Your task to perform on an android device: toggle show notifications on the lock screen Image 0: 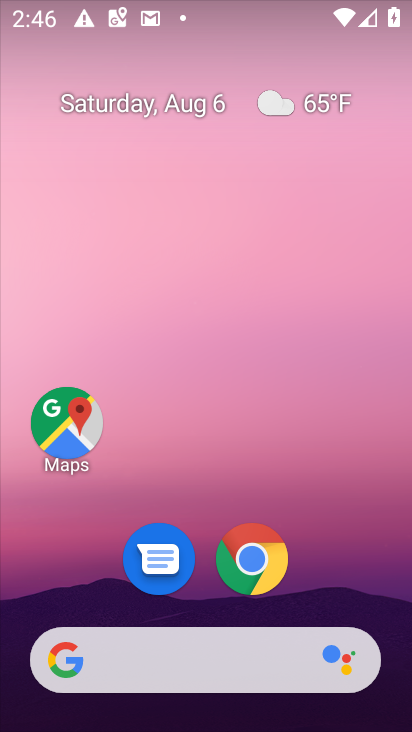
Step 0: drag from (224, 517) to (274, 159)
Your task to perform on an android device: toggle show notifications on the lock screen Image 1: 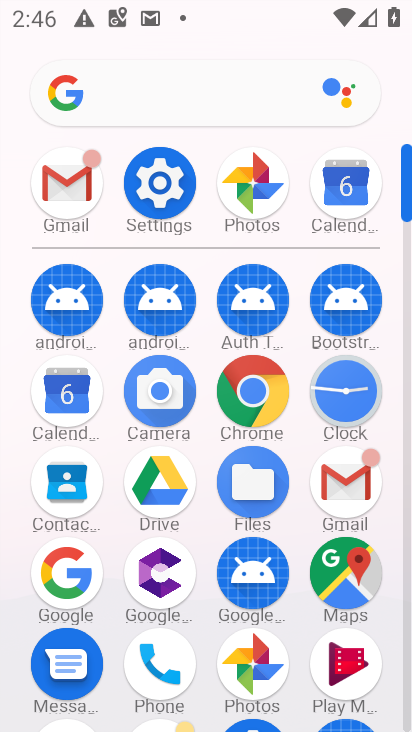
Step 1: click (160, 175)
Your task to perform on an android device: toggle show notifications on the lock screen Image 2: 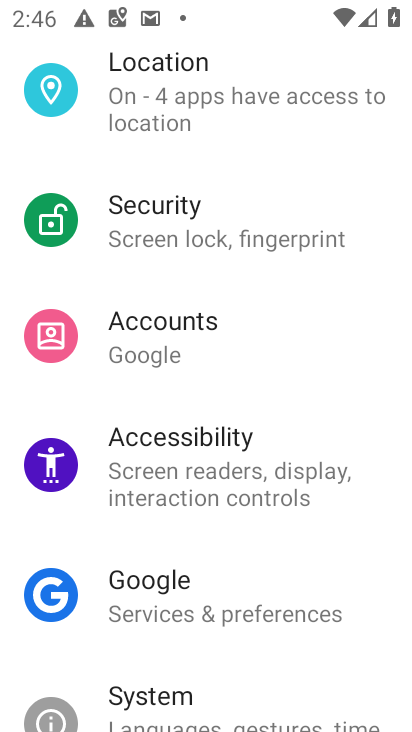
Step 2: drag from (246, 195) to (264, 526)
Your task to perform on an android device: toggle show notifications on the lock screen Image 3: 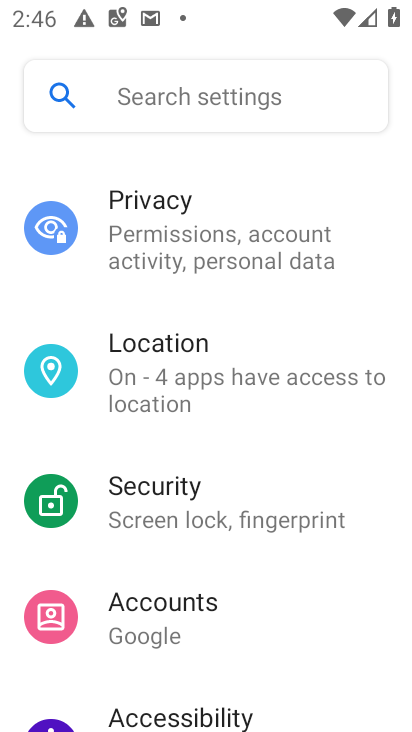
Step 3: drag from (226, 222) to (226, 549)
Your task to perform on an android device: toggle show notifications on the lock screen Image 4: 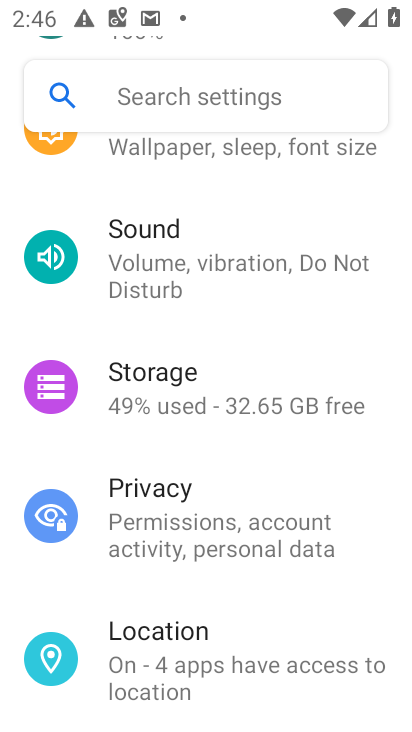
Step 4: drag from (220, 217) to (227, 538)
Your task to perform on an android device: toggle show notifications on the lock screen Image 5: 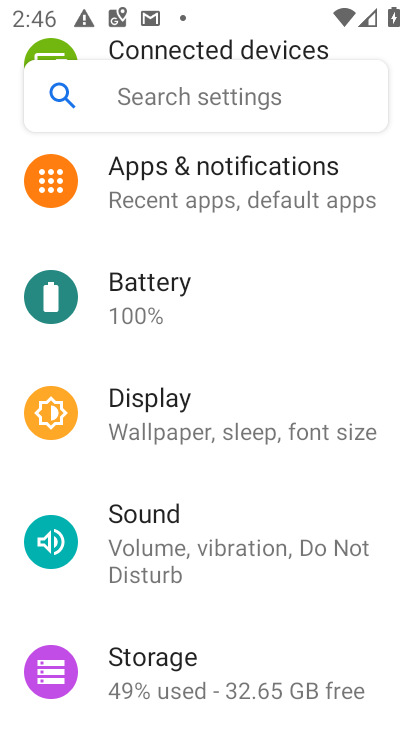
Step 5: click (220, 180)
Your task to perform on an android device: toggle show notifications on the lock screen Image 6: 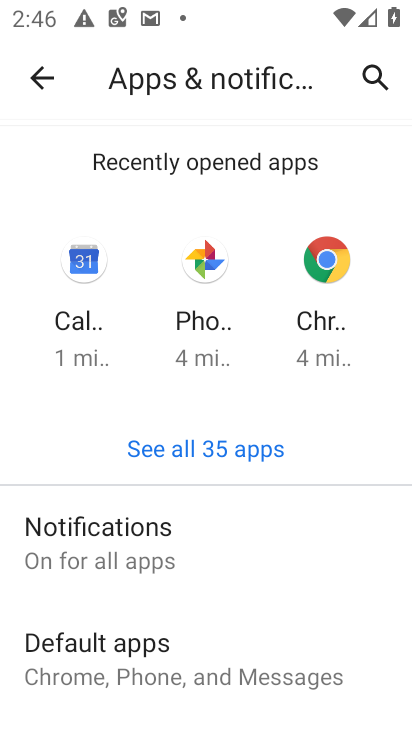
Step 6: click (182, 543)
Your task to perform on an android device: toggle show notifications on the lock screen Image 7: 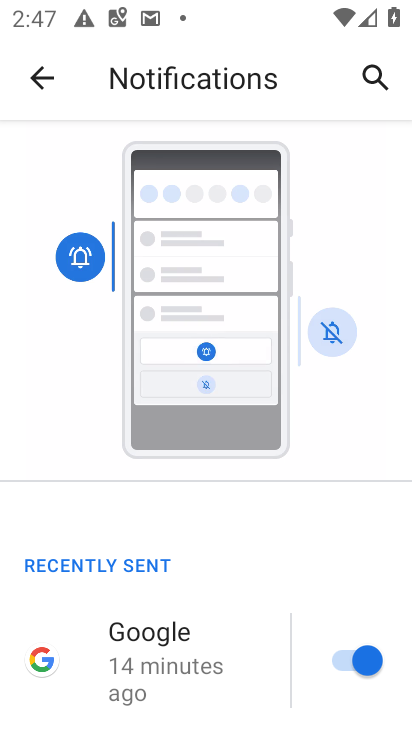
Step 7: drag from (200, 596) to (209, 219)
Your task to perform on an android device: toggle show notifications on the lock screen Image 8: 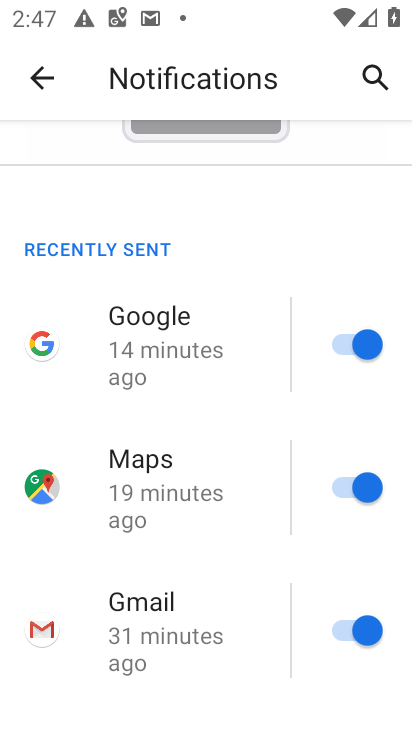
Step 8: drag from (195, 457) to (211, 241)
Your task to perform on an android device: toggle show notifications on the lock screen Image 9: 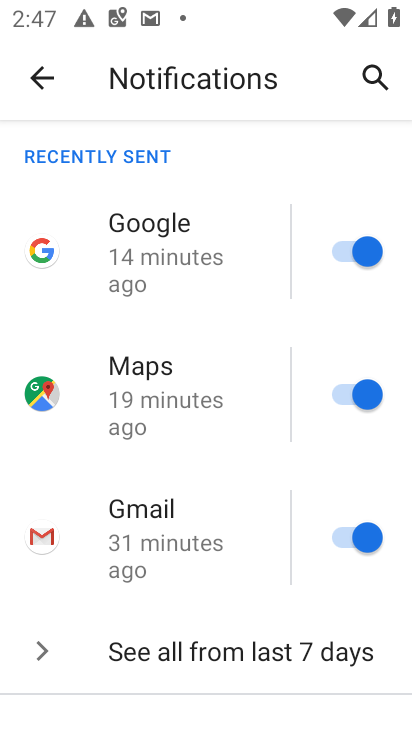
Step 9: drag from (212, 598) to (207, 235)
Your task to perform on an android device: toggle show notifications on the lock screen Image 10: 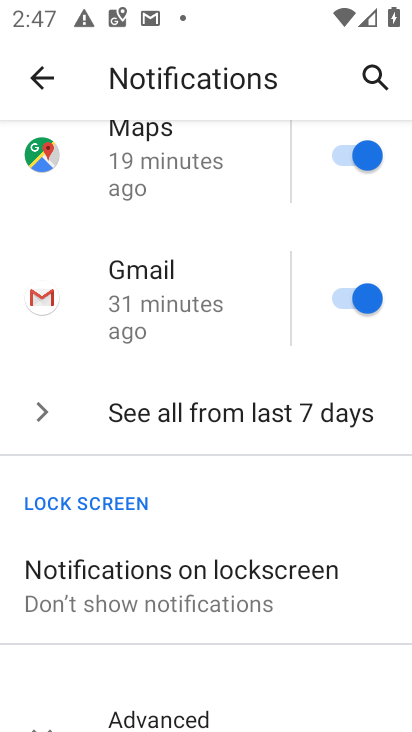
Step 10: click (208, 570)
Your task to perform on an android device: toggle show notifications on the lock screen Image 11: 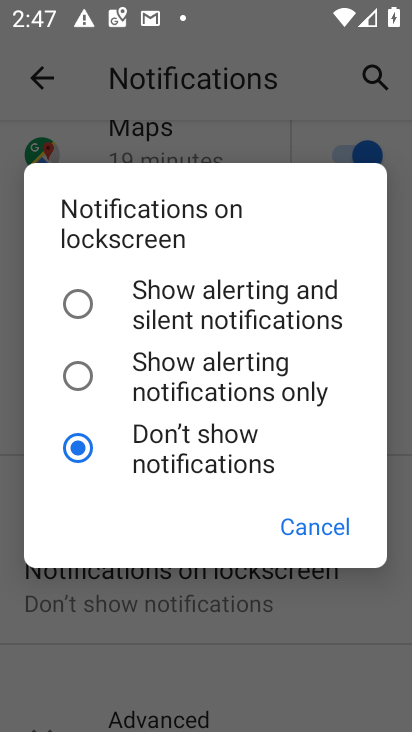
Step 11: click (194, 297)
Your task to perform on an android device: toggle show notifications on the lock screen Image 12: 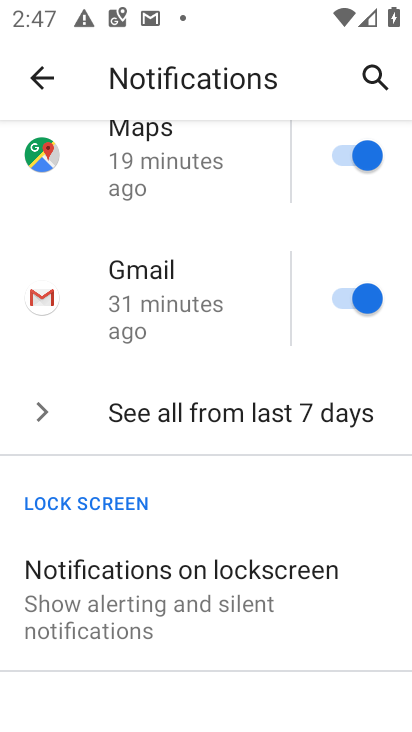
Step 12: task complete